Your task to perform on an android device: Go to CNN.com Image 0: 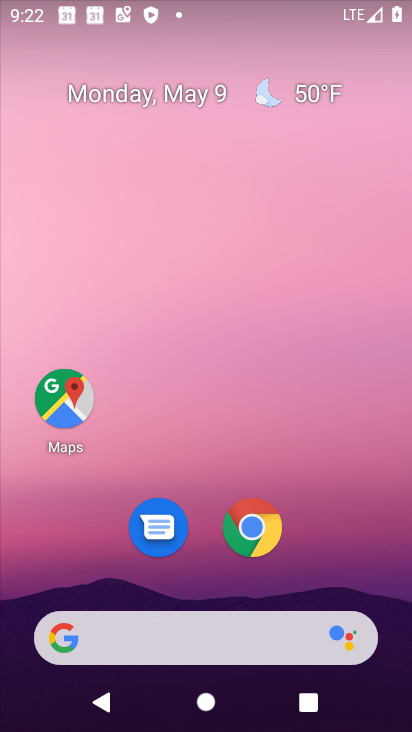
Step 0: click (252, 526)
Your task to perform on an android device: Go to CNN.com Image 1: 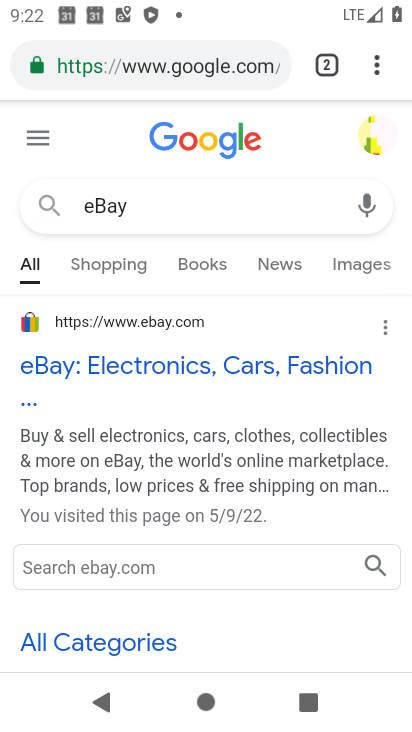
Step 1: click (197, 61)
Your task to perform on an android device: Go to CNN.com Image 2: 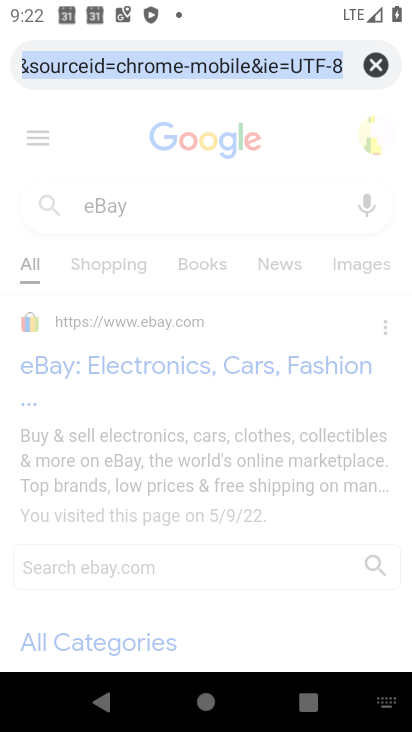
Step 2: type "CNN.com"
Your task to perform on an android device: Go to CNN.com Image 3: 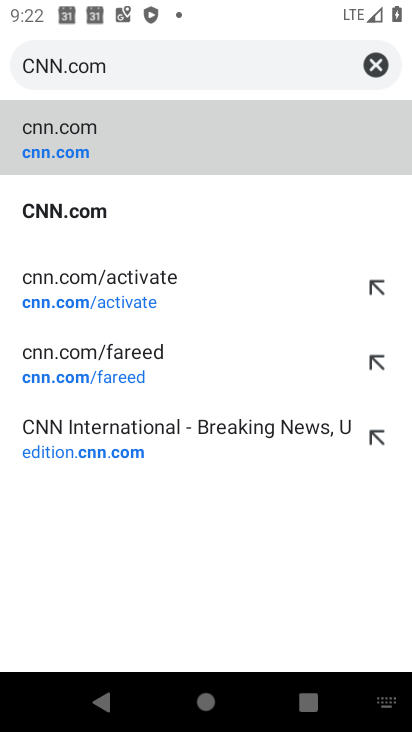
Step 3: click (112, 138)
Your task to perform on an android device: Go to CNN.com Image 4: 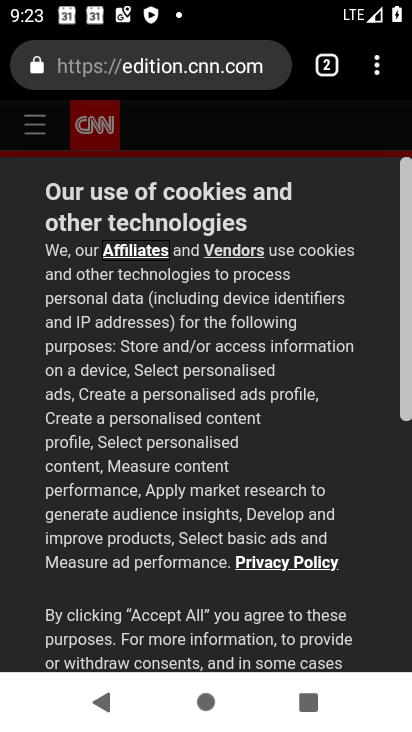
Step 4: task complete